Your task to perform on an android device: turn on javascript in the chrome app Image 0: 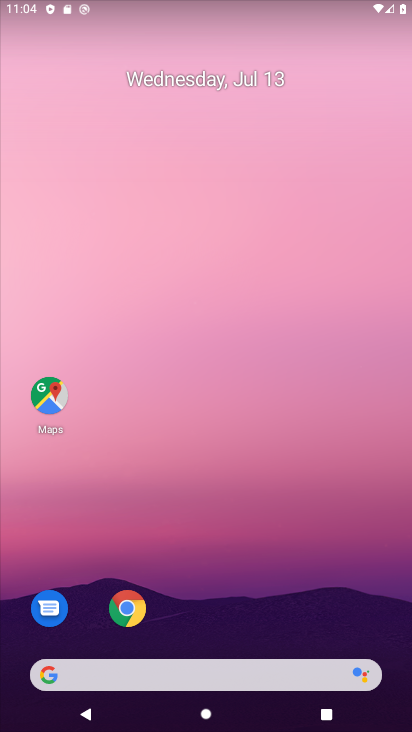
Step 0: click (117, 611)
Your task to perform on an android device: turn on javascript in the chrome app Image 1: 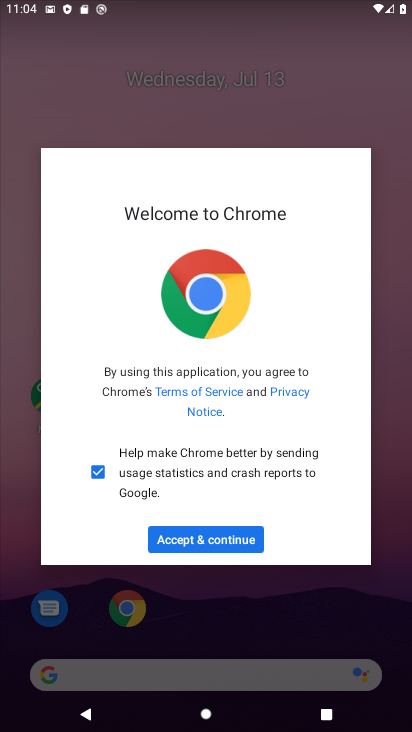
Step 1: click (201, 535)
Your task to perform on an android device: turn on javascript in the chrome app Image 2: 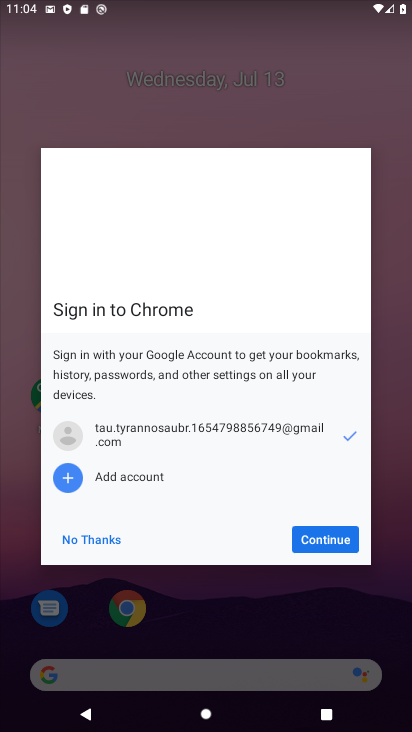
Step 2: click (346, 546)
Your task to perform on an android device: turn on javascript in the chrome app Image 3: 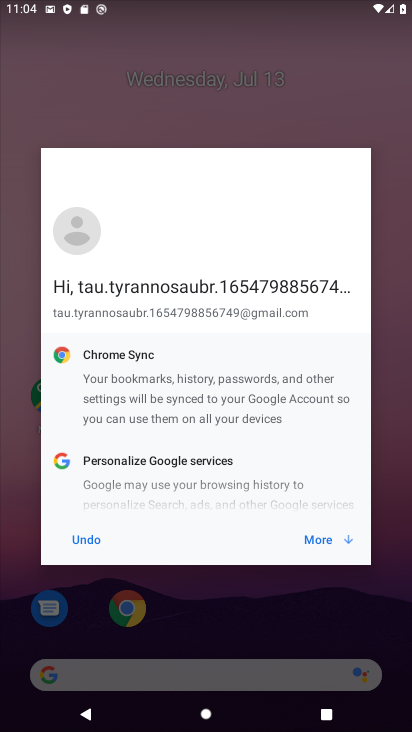
Step 3: click (346, 546)
Your task to perform on an android device: turn on javascript in the chrome app Image 4: 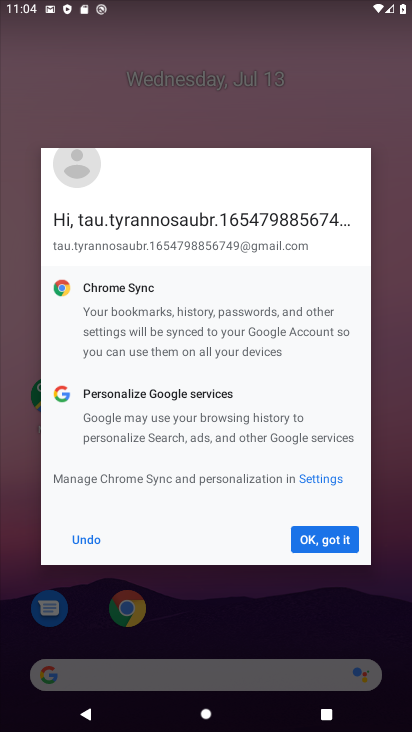
Step 4: click (346, 546)
Your task to perform on an android device: turn on javascript in the chrome app Image 5: 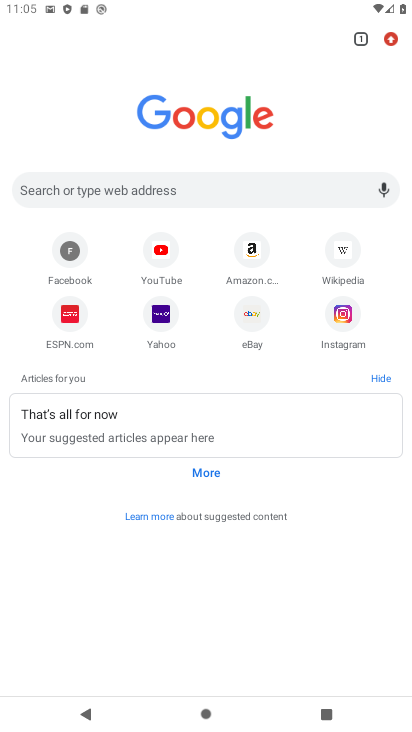
Step 5: click (389, 44)
Your task to perform on an android device: turn on javascript in the chrome app Image 6: 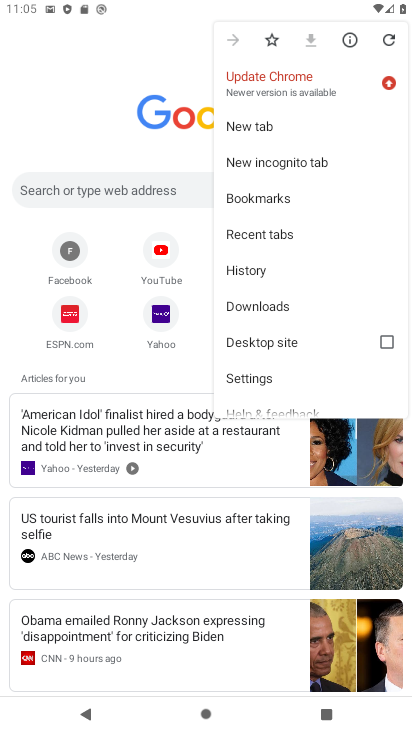
Step 6: click (263, 371)
Your task to perform on an android device: turn on javascript in the chrome app Image 7: 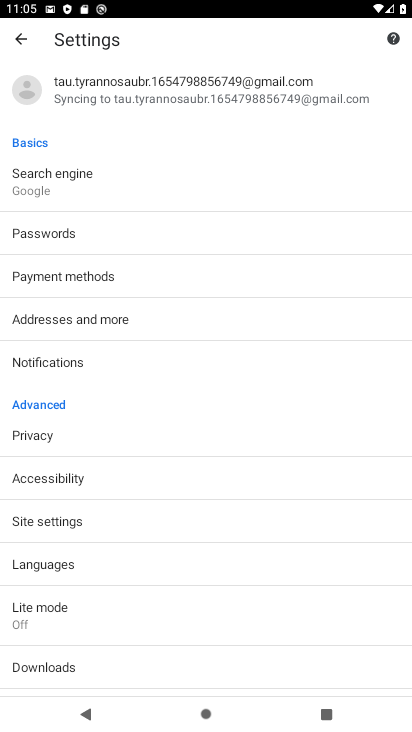
Step 7: click (43, 517)
Your task to perform on an android device: turn on javascript in the chrome app Image 8: 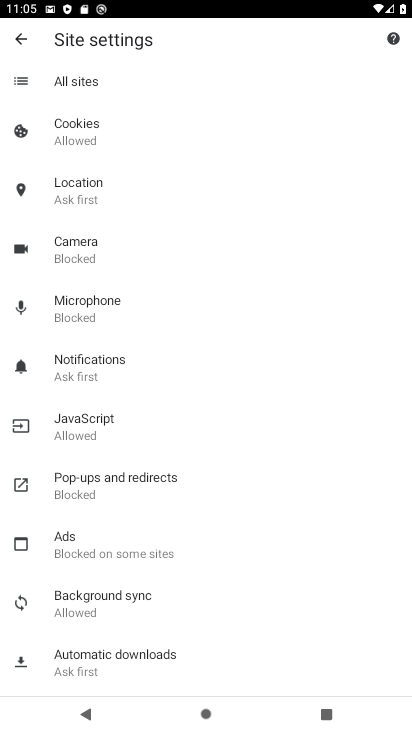
Step 8: click (119, 425)
Your task to perform on an android device: turn on javascript in the chrome app Image 9: 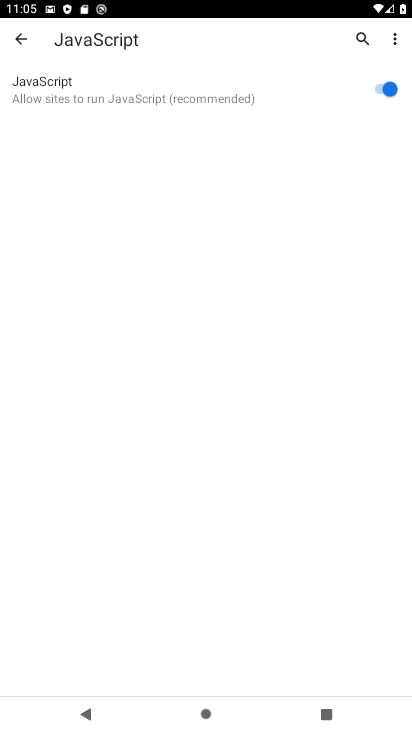
Step 9: task complete